Your task to perform on an android device: Go to settings Image 0: 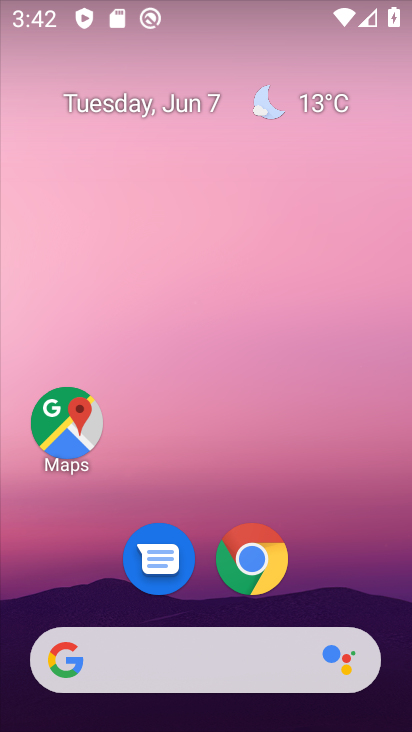
Step 0: drag from (216, 614) to (162, 175)
Your task to perform on an android device: Go to settings Image 1: 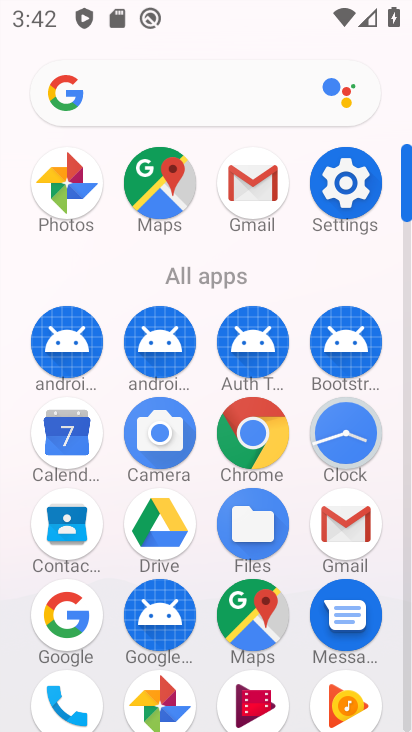
Step 1: click (358, 193)
Your task to perform on an android device: Go to settings Image 2: 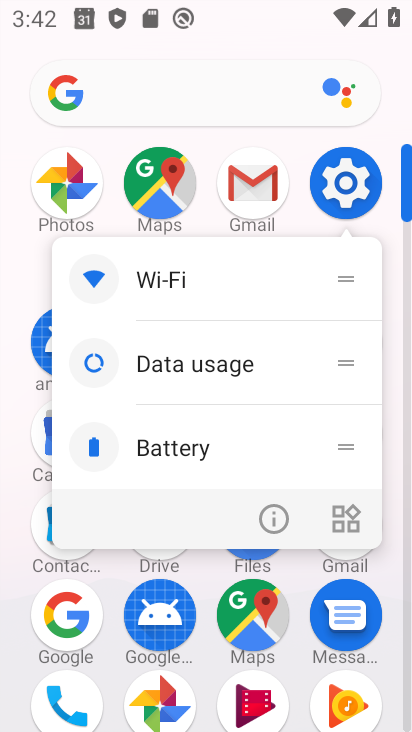
Step 2: click (13, 438)
Your task to perform on an android device: Go to settings Image 3: 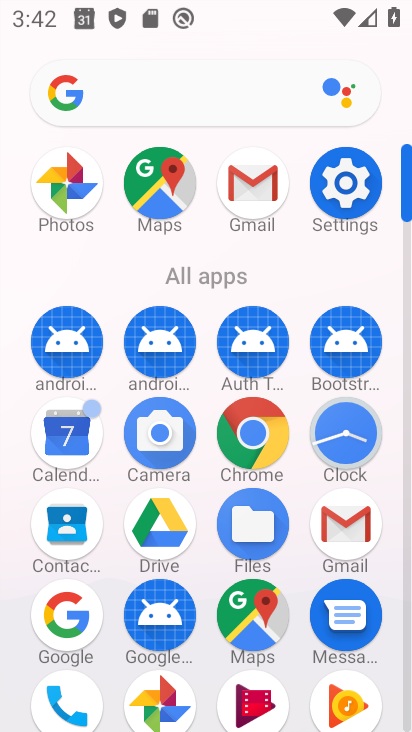
Step 3: click (343, 197)
Your task to perform on an android device: Go to settings Image 4: 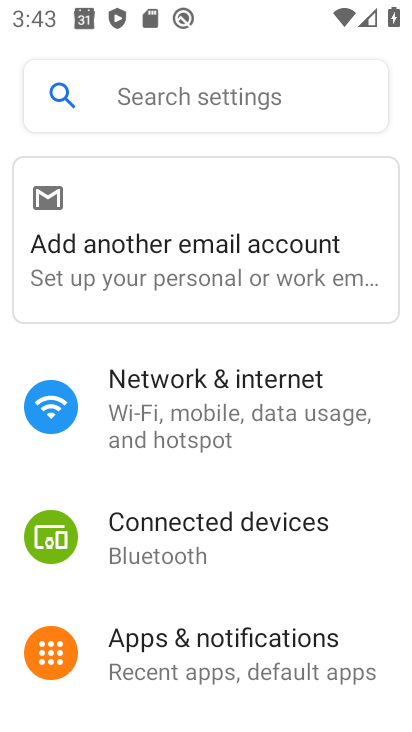
Step 4: task complete